Your task to perform on an android device: Turn on the flashlight Image 0: 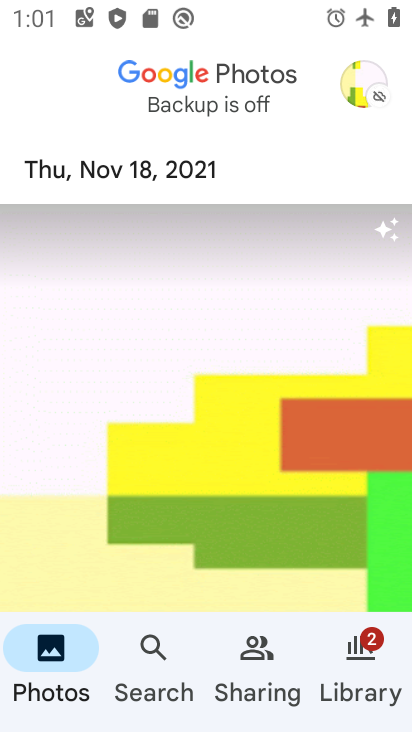
Step 0: press home button
Your task to perform on an android device: Turn on the flashlight Image 1: 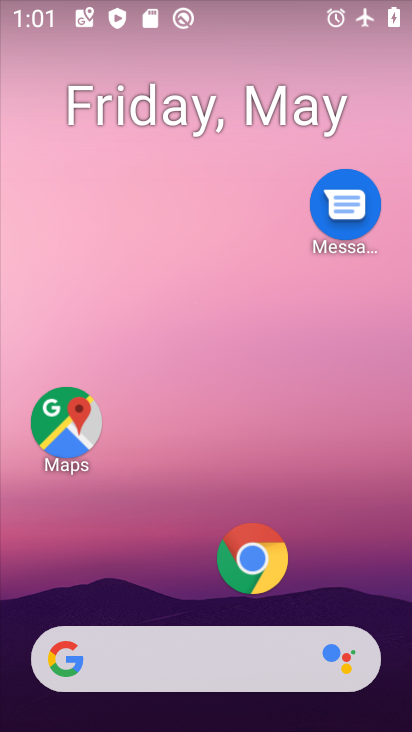
Step 1: task complete